Your task to perform on an android device: turn on bluetooth scan Image 0: 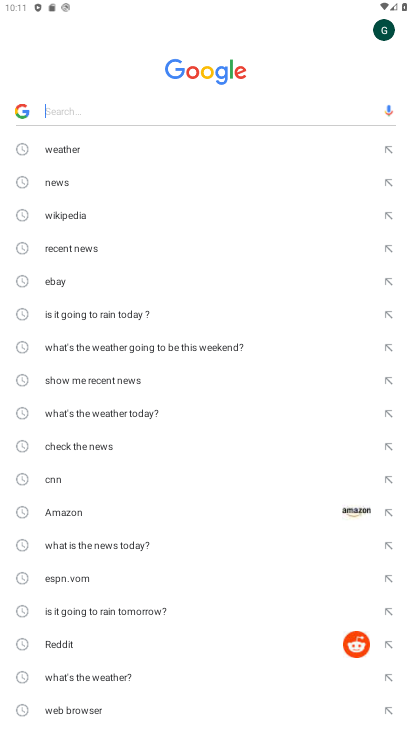
Step 0: press home button
Your task to perform on an android device: turn on bluetooth scan Image 1: 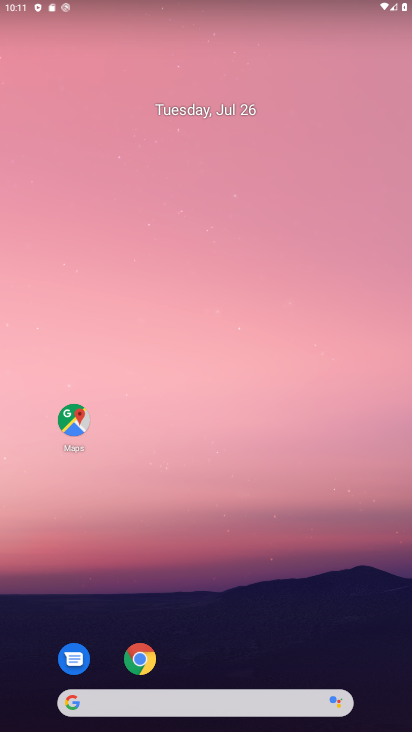
Step 1: drag from (295, 659) to (276, 146)
Your task to perform on an android device: turn on bluetooth scan Image 2: 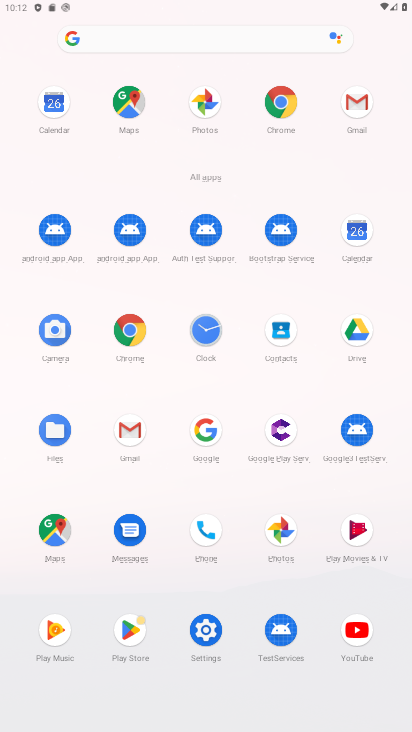
Step 2: click (236, 626)
Your task to perform on an android device: turn on bluetooth scan Image 3: 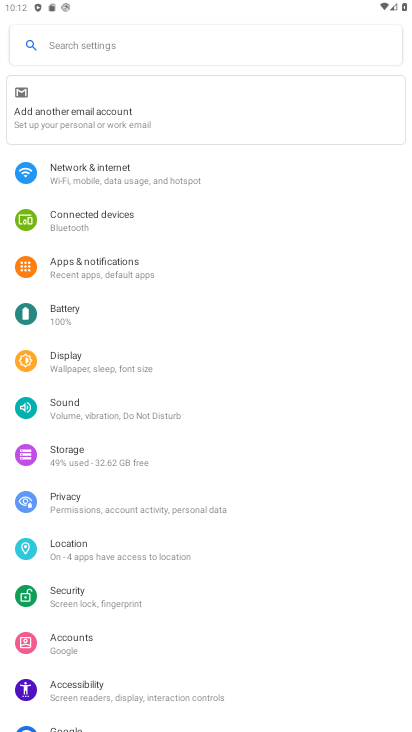
Step 3: click (55, 539)
Your task to perform on an android device: turn on bluetooth scan Image 4: 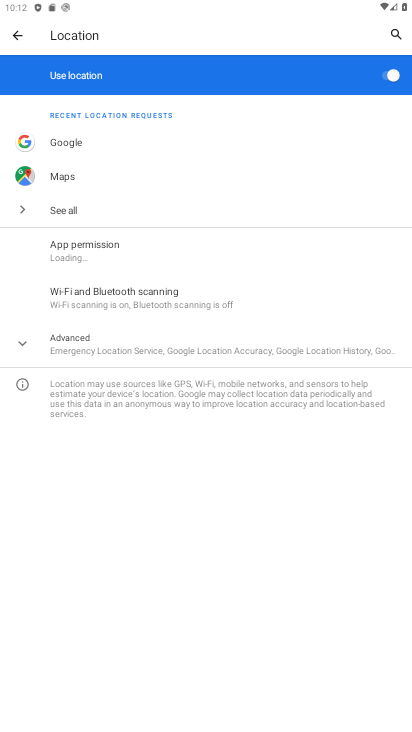
Step 4: click (98, 354)
Your task to perform on an android device: turn on bluetooth scan Image 5: 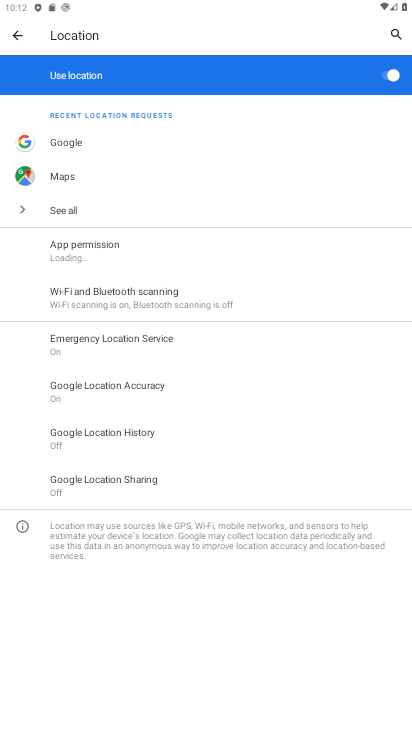
Step 5: click (92, 378)
Your task to perform on an android device: turn on bluetooth scan Image 6: 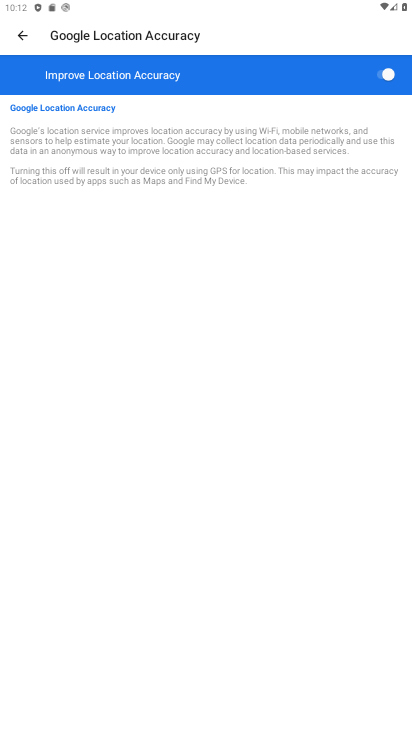
Step 6: task complete